Your task to perform on an android device: move an email to a new category in the gmail app Image 0: 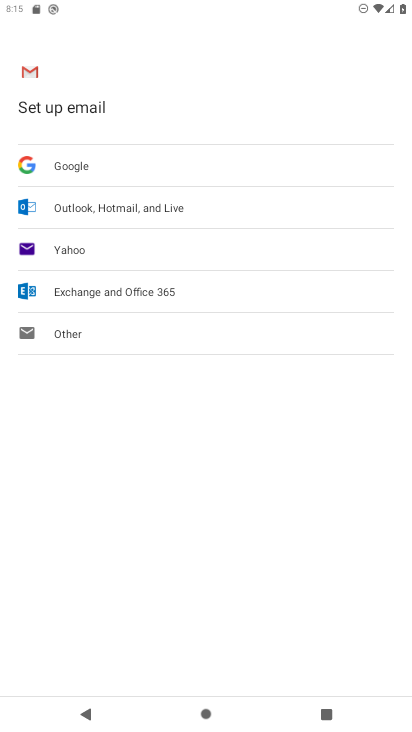
Step 0: press home button
Your task to perform on an android device: move an email to a new category in the gmail app Image 1: 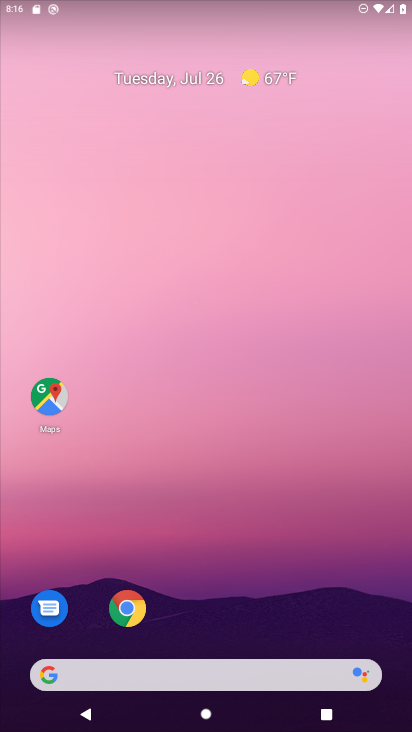
Step 1: drag from (201, 627) to (219, 23)
Your task to perform on an android device: move an email to a new category in the gmail app Image 2: 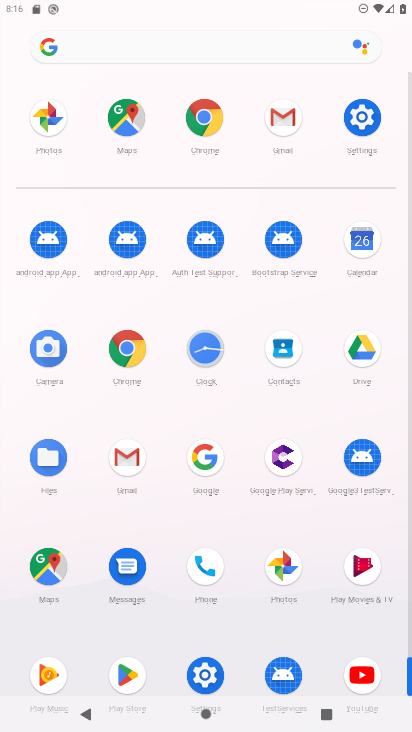
Step 2: click (136, 472)
Your task to perform on an android device: move an email to a new category in the gmail app Image 3: 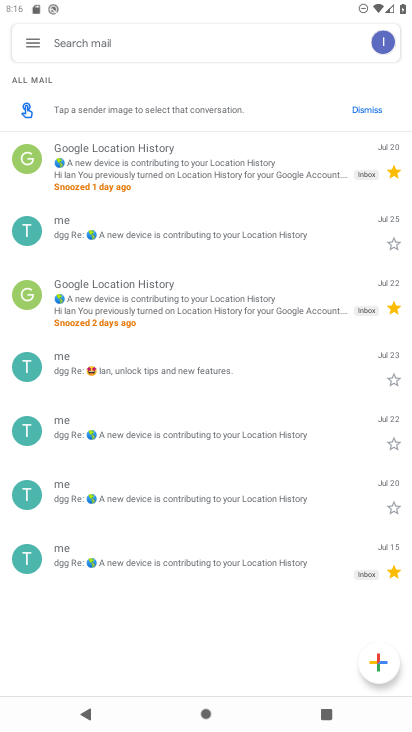
Step 3: click (23, 229)
Your task to perform on an android device: move an email to a new category in the gmail app Image 4: 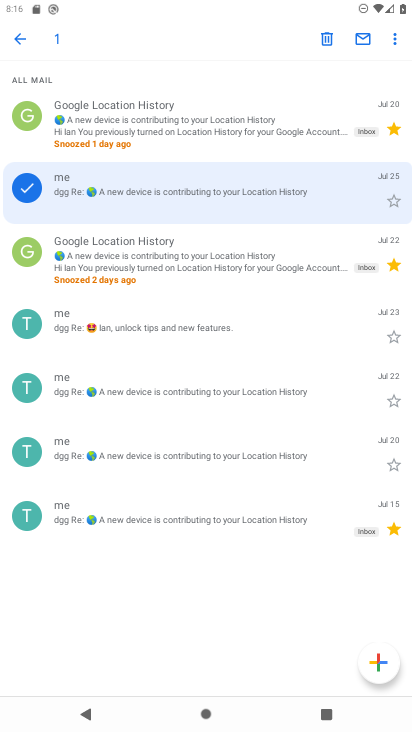
Step 4: click (401, 39)
Your task to perform on an android device: move an email to a new category in the gmail app Image 5: 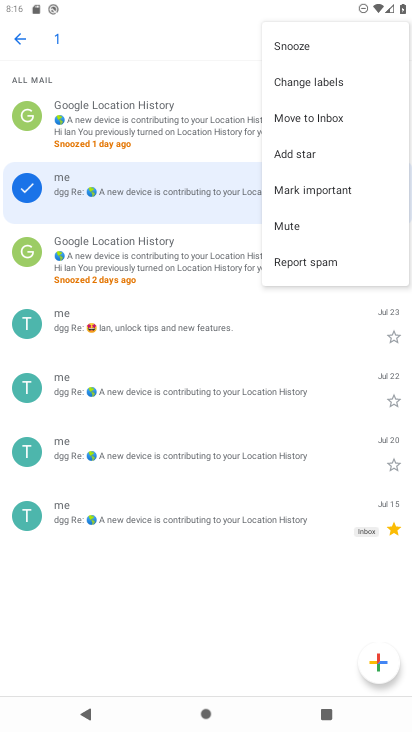
Step 5: click (342, 75)
Your task to perform on an android device: move an email to a new category in the gmail app Image 6: 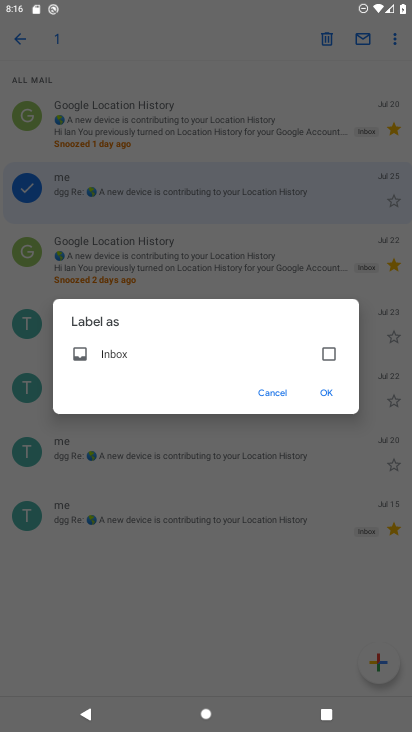
Step 6: click (324, 354)
Your task to perform on an android device: move an email to a new category in the gmail app Image 7: 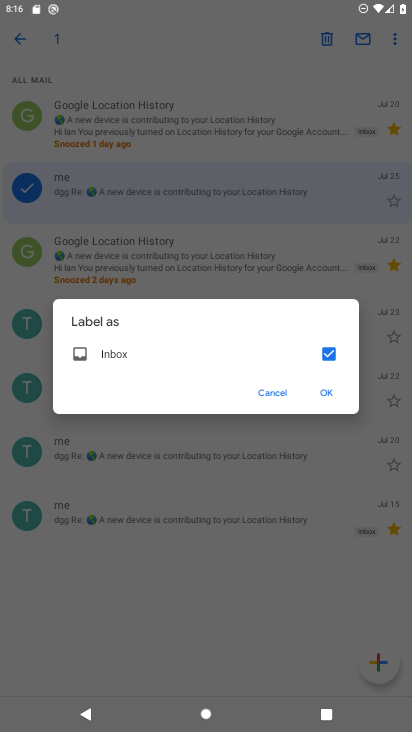
Step 7: click (322, 393)
Your task to perform on an android device: move an email to a new category in the gmail app Image 8: 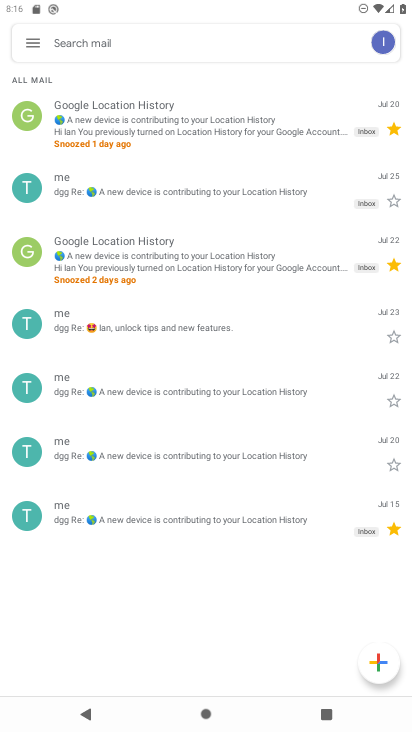
Step 8: task complete